Your task to perform on an android device: Open Yahoo.com Image 0: 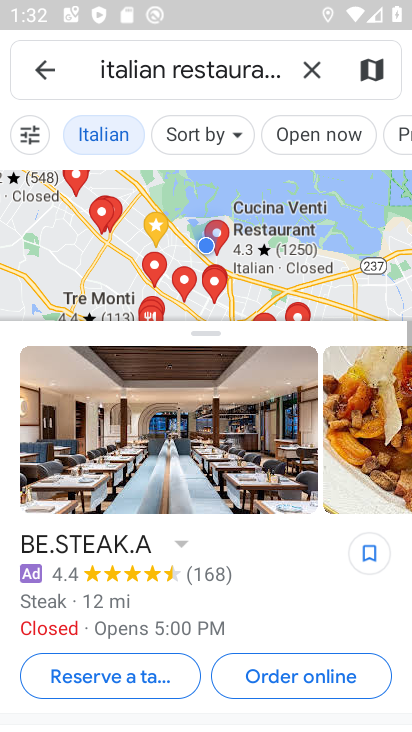
Step 0: press back button
Your task to perform on an android device: Open Yahoo.com Image 1: 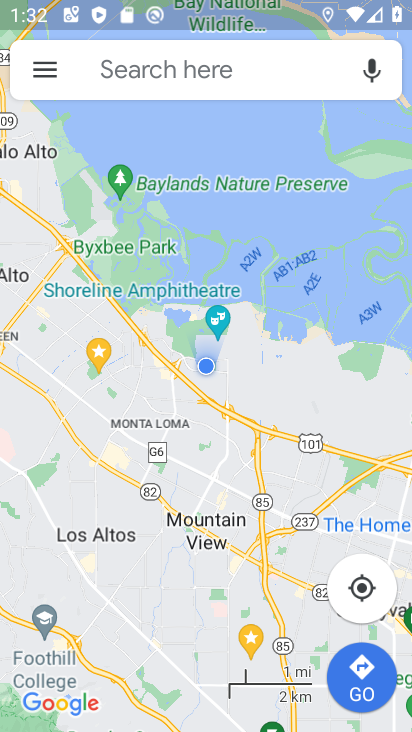
Step 1: press back button
Your task to perform on an android device: Open Yahoo.com Image 2: 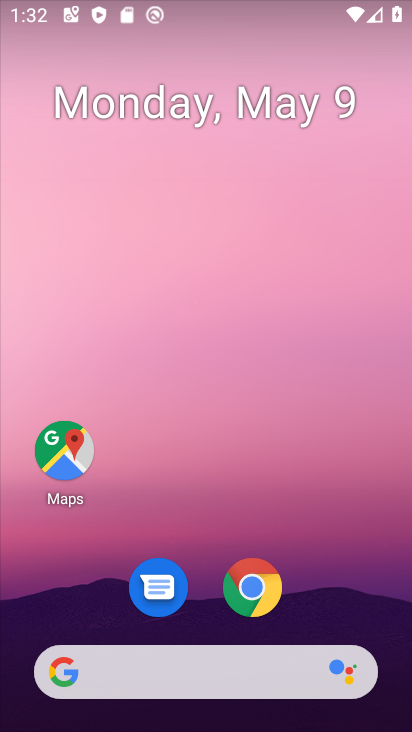
Step 2: click (263, 574)
Your task to perform on an android device: Open Yahoo.com Image 3: 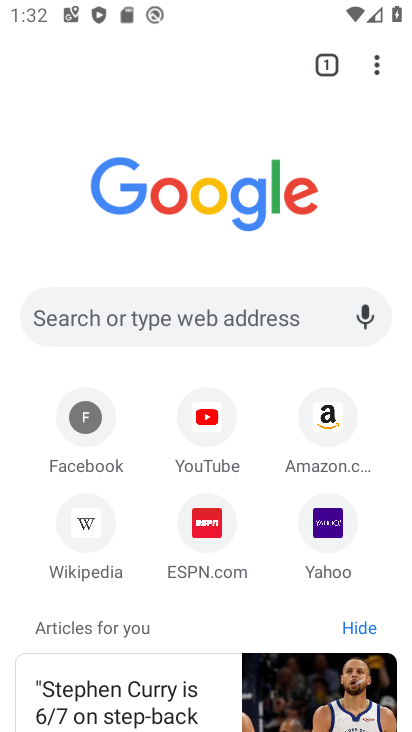
Step 3: click (330, 535)
Your task to perform on an android device: Open Yahoo.com Image 4: 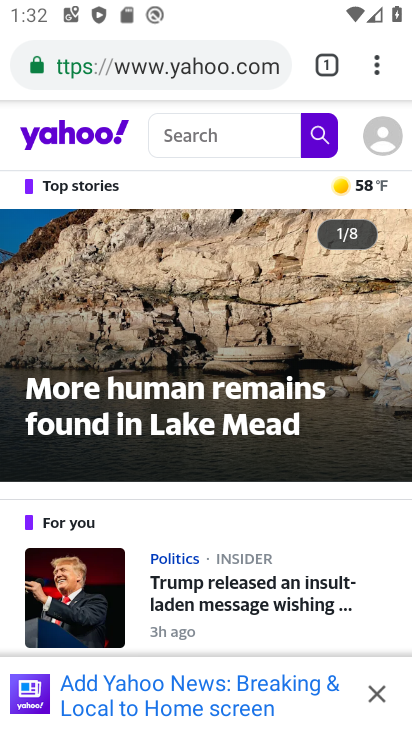
Step 4: task complete